Your task to perform on an android device: change keyboard looks Image 0: 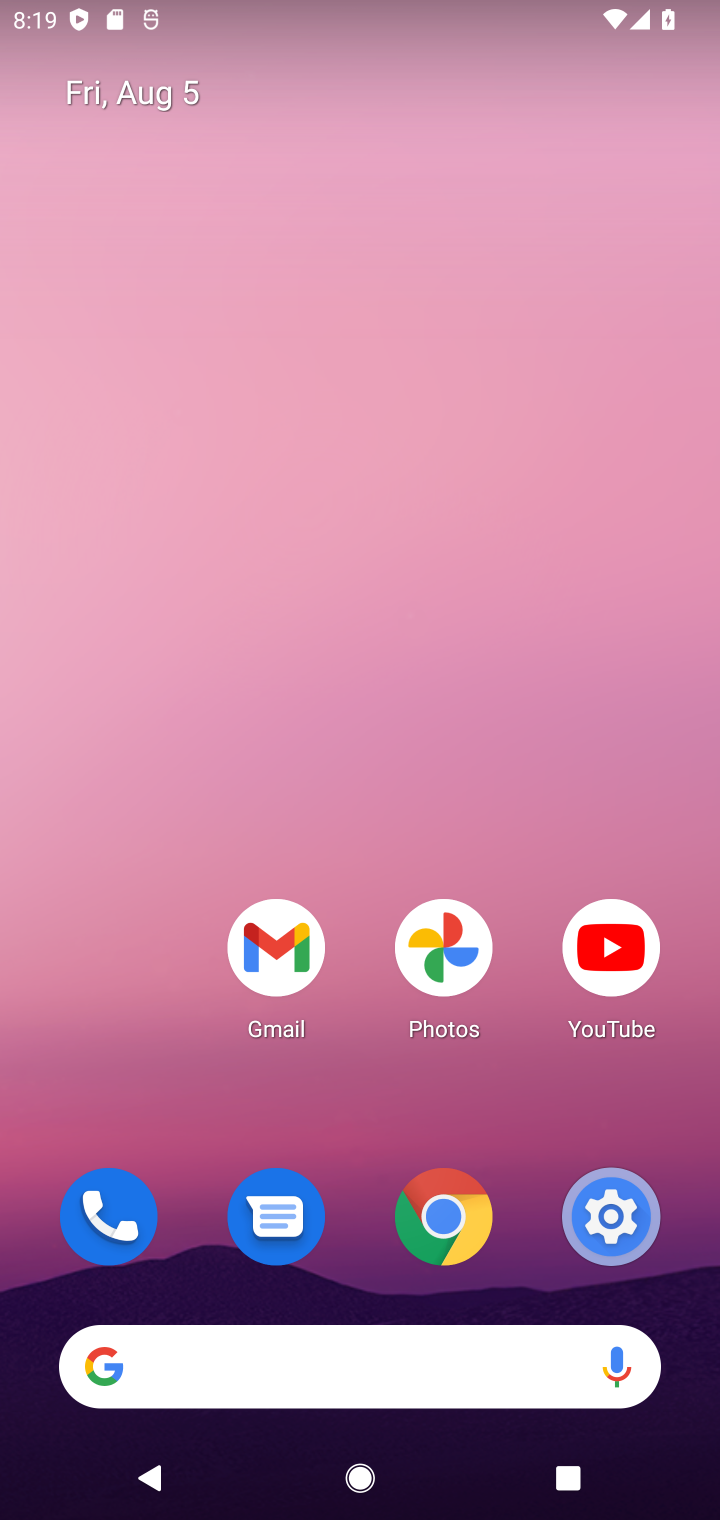
Step 0: drag from (380, 1255) to (429, 141)
Your task to perform on an android device: change keyboard looks Image 1: 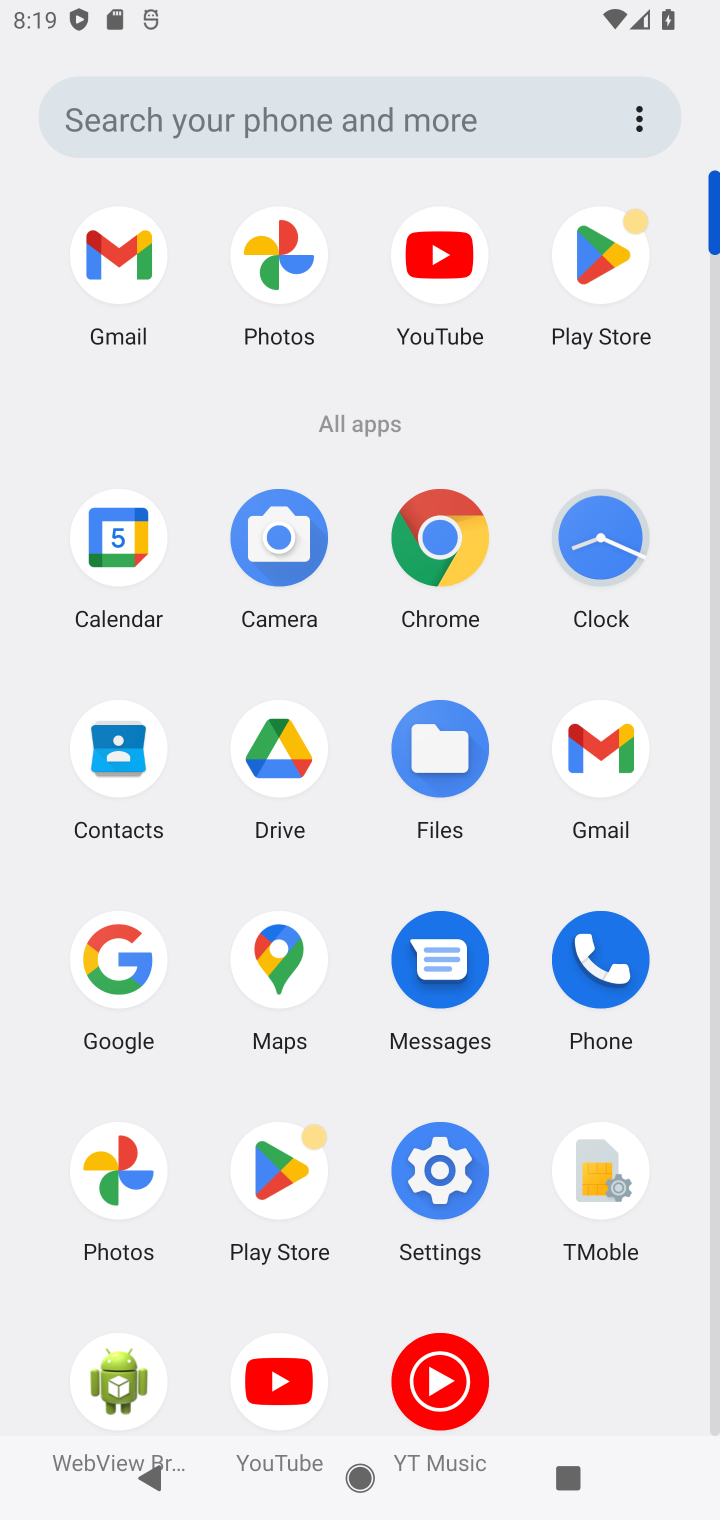
Step 1: drag from (376, 1282) to (444, 431)
Your task to perform on an android device: change keyboard looks Image 2: 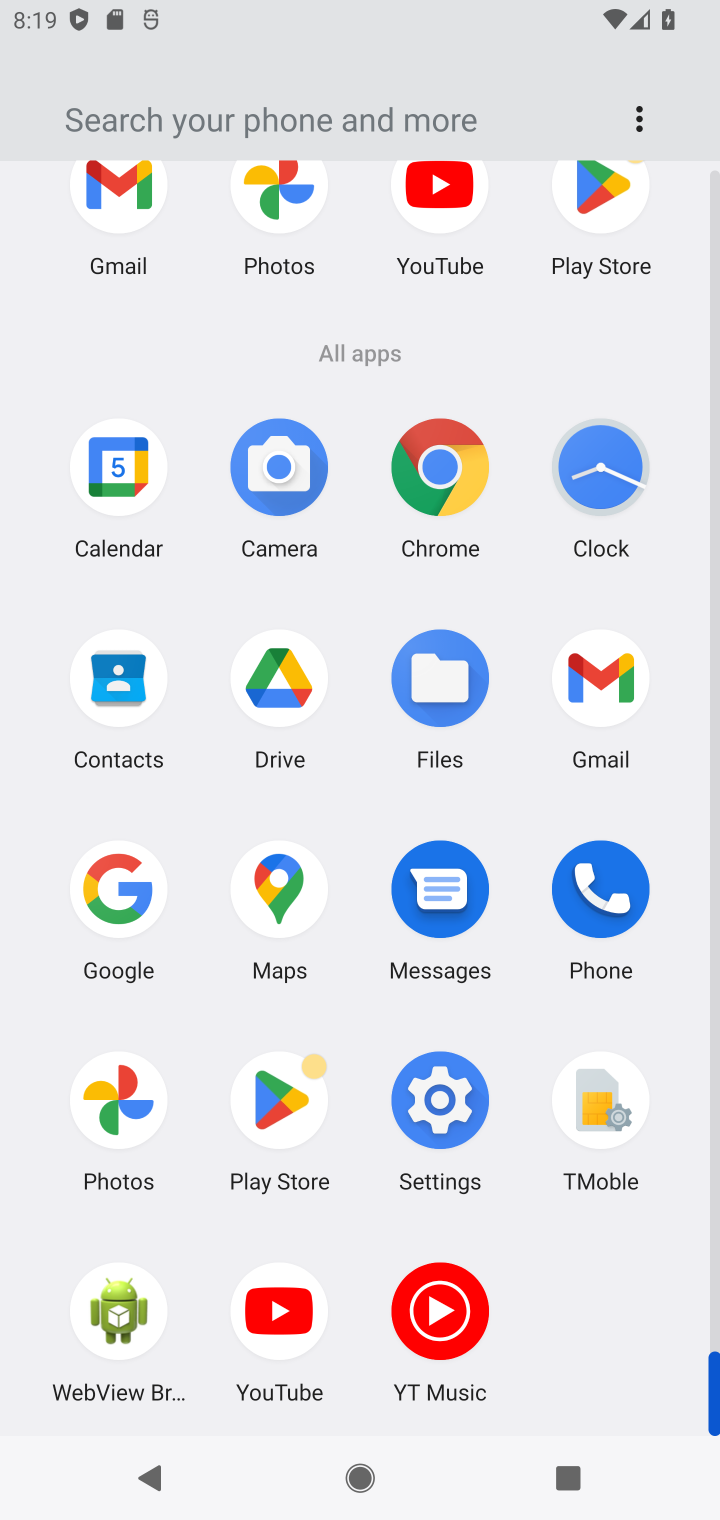
Step 2: click (427, 1095)
Your task to perform on an android device: change keyboard looks Image 3: 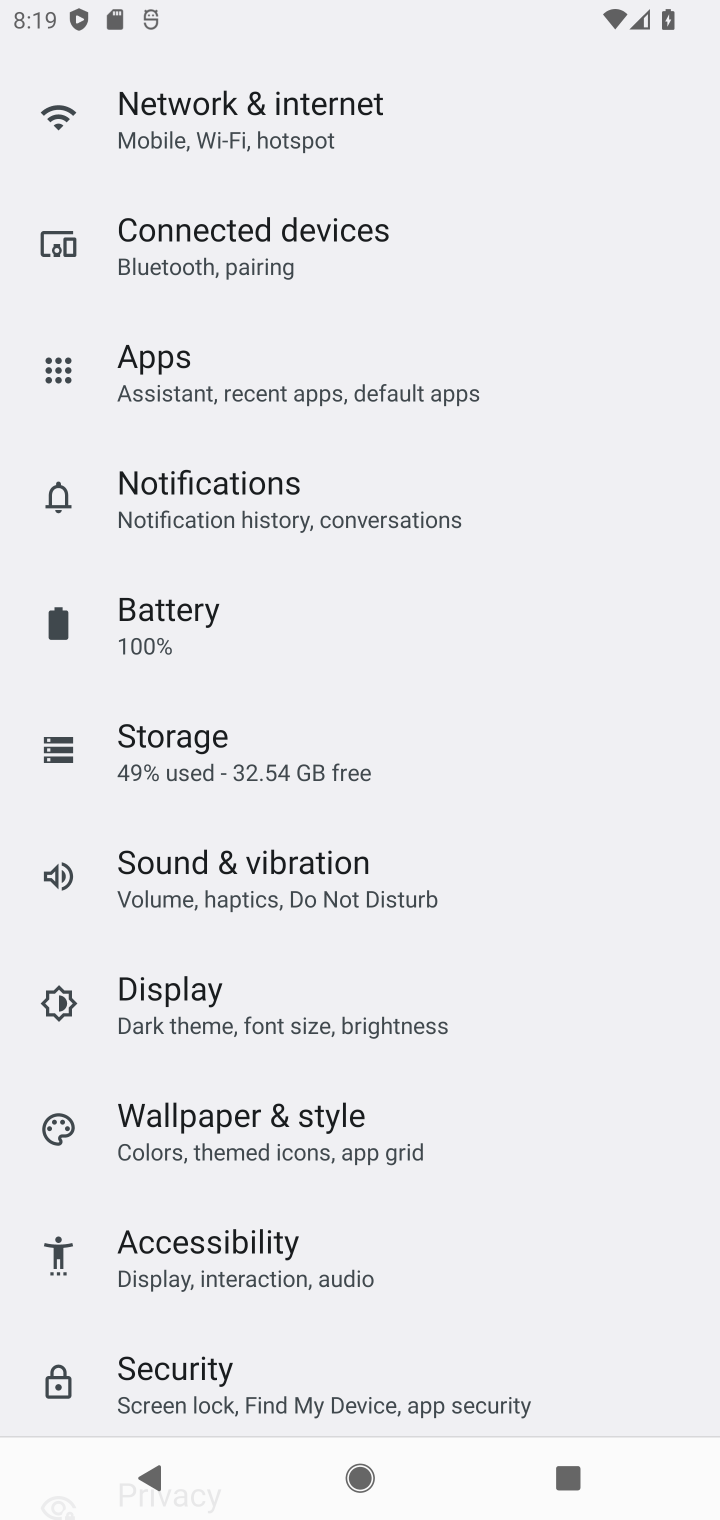
Step 3: drag from (352, 1094) to (539, 429)
Your task to perform on an android device: change keyboard looks Image 4: 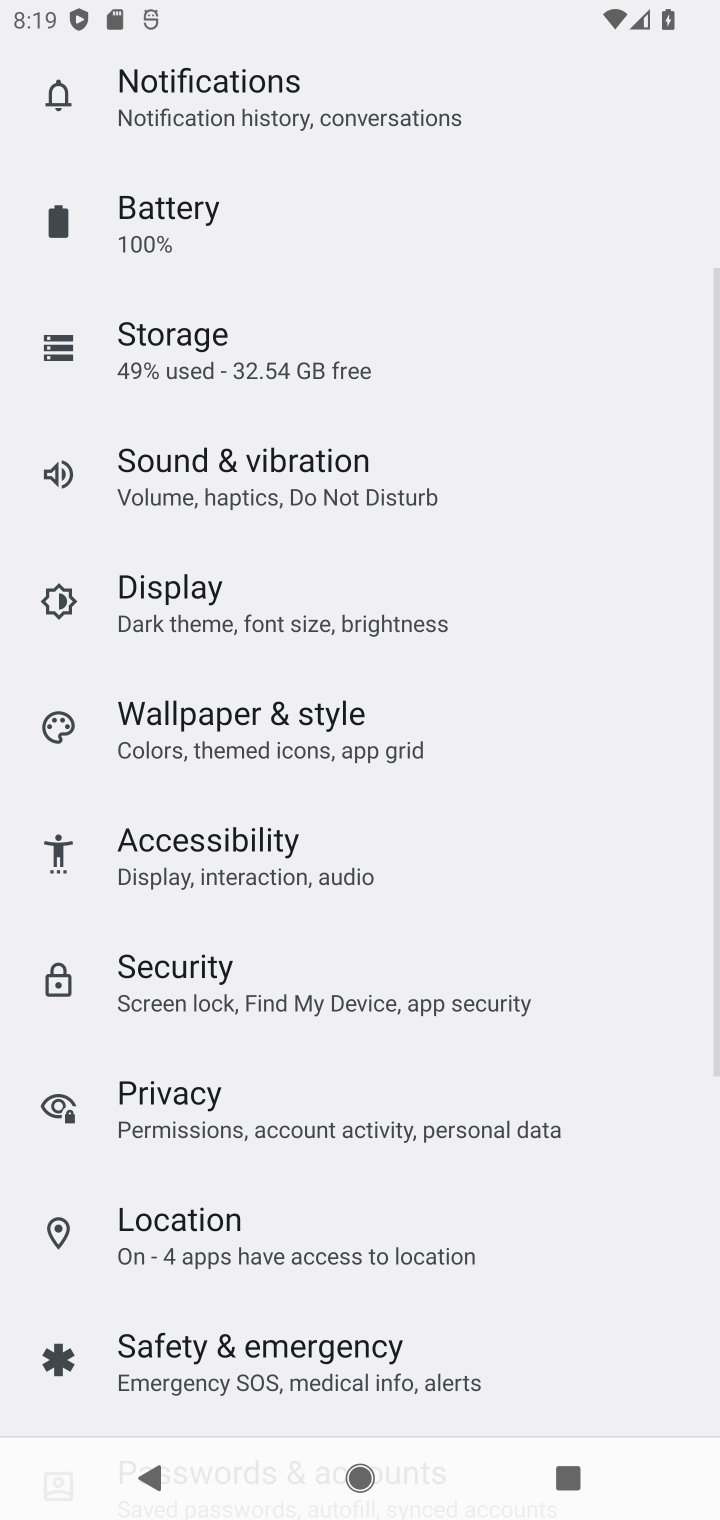
Step 4: drag from (322, 1127) to (392, 296)
Your task to perform on an android device: change keyboard looks Image 5: 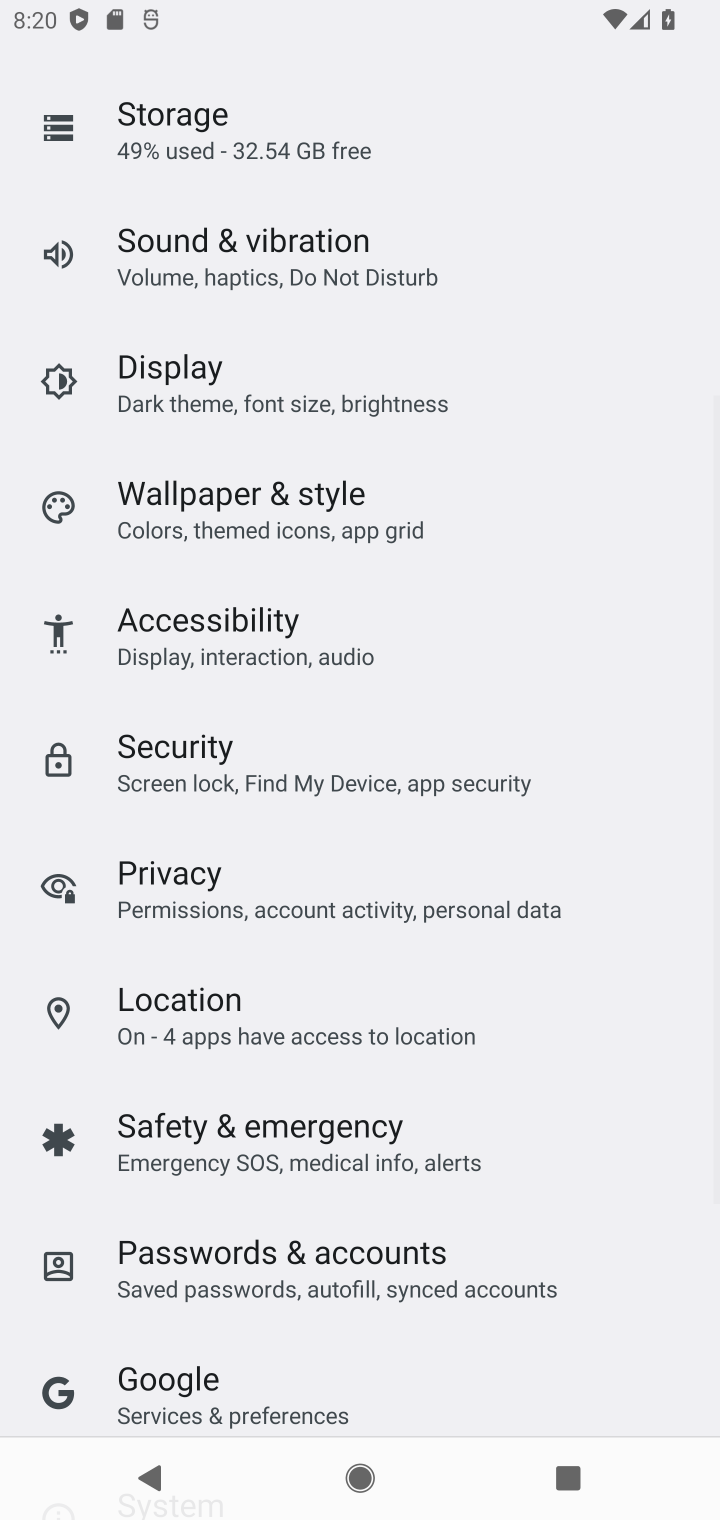
Step 5: drag from (218, 1208) to (347, 642)
Your task to perform on an android device: change keyboard looks Image 6: 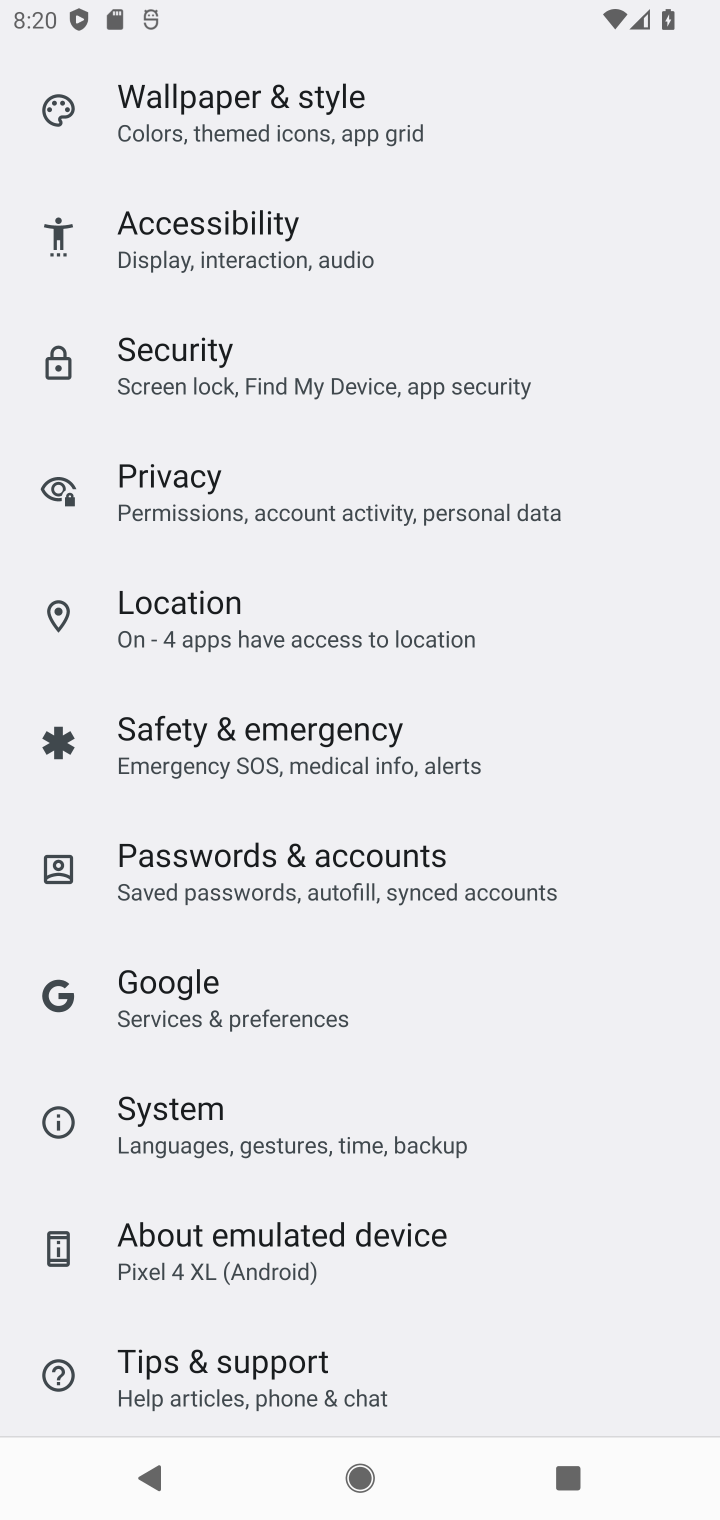
Step 6: click (180, 1111)
Your task to perform on an android device: change keyboard looks Image 7: 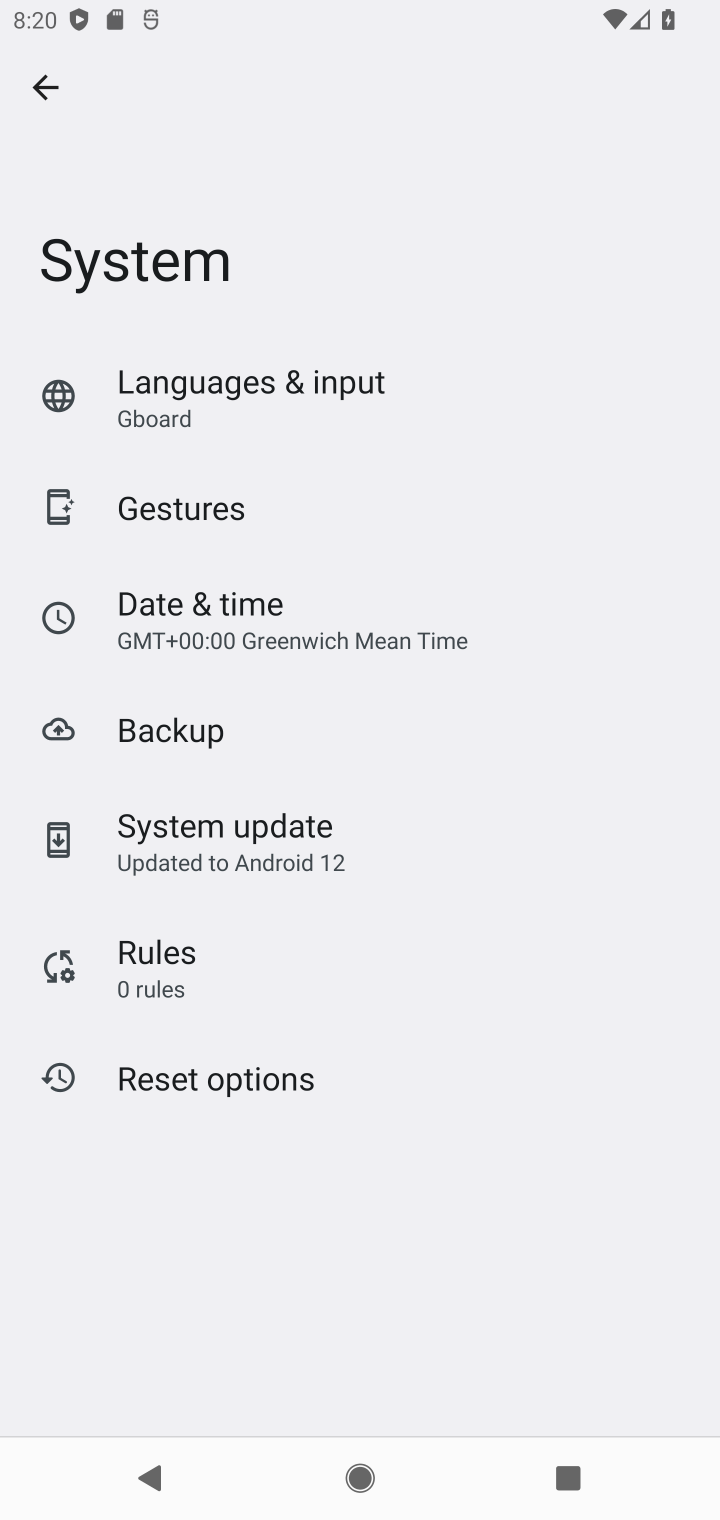
Step 7: click (142, 406)
Your task to perform on an android device: change keyboard looks Image 8: 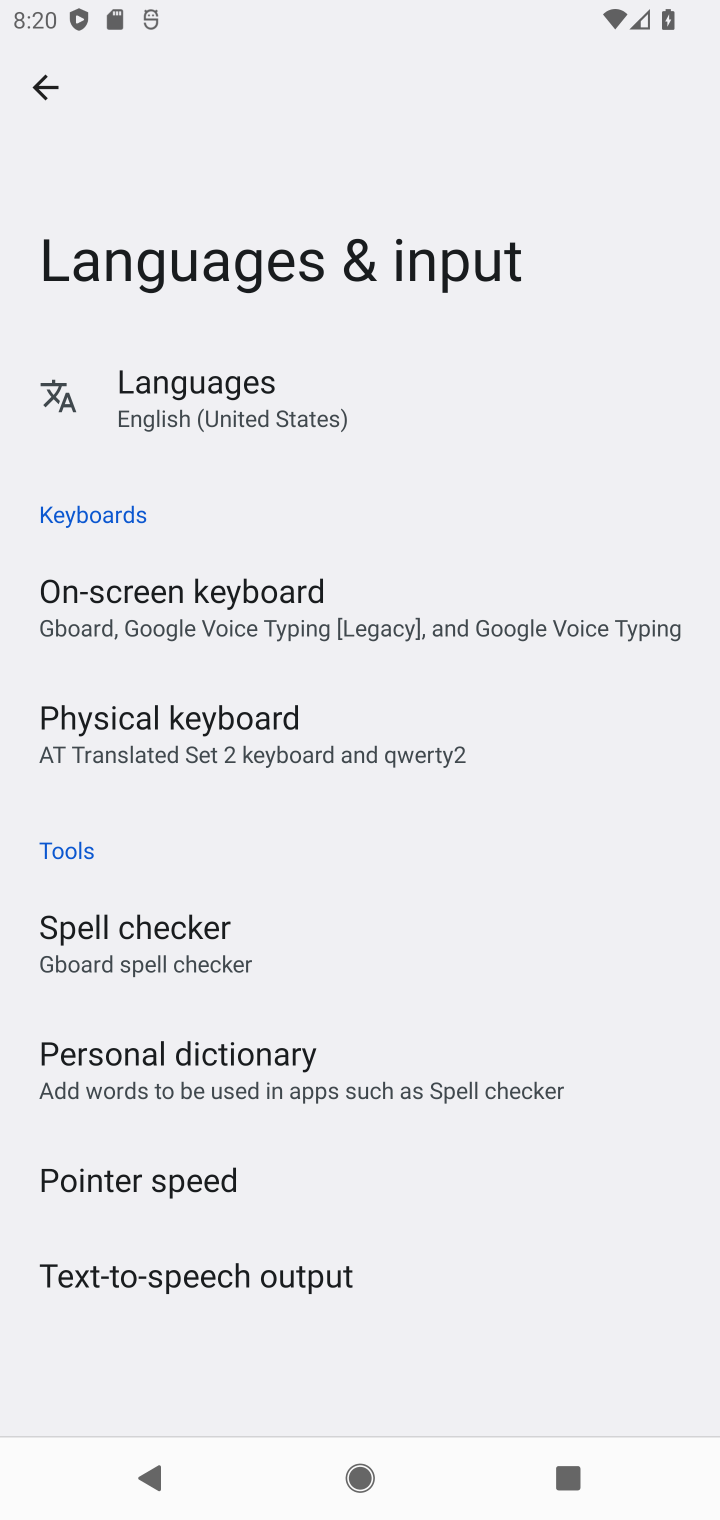
Step 8: drag from (293, 1075) to (418, 512)
Your task to perform on an android device: change keyboard looks Image 9: 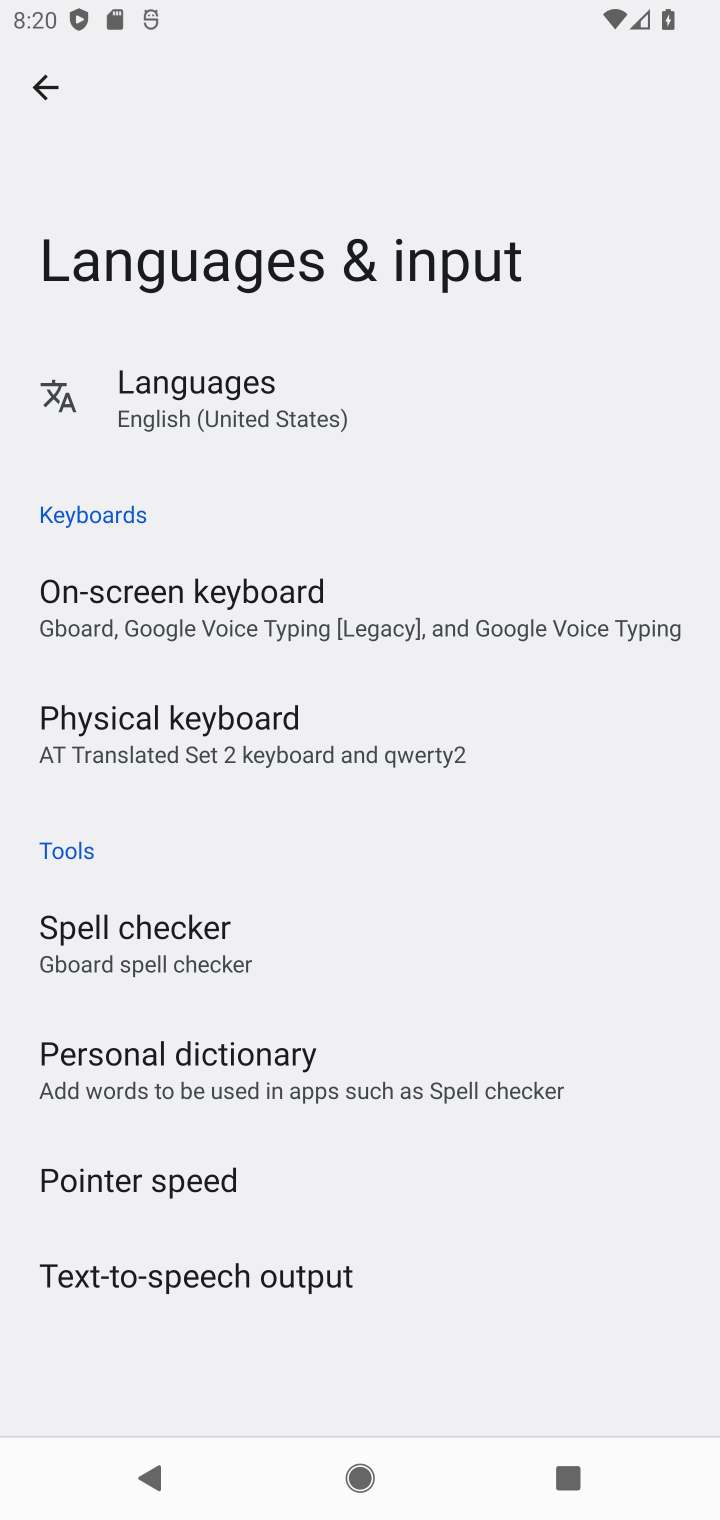
Step 9: click (214, 564)
Your task to perform on an android device: change keyboard looks Image 10: 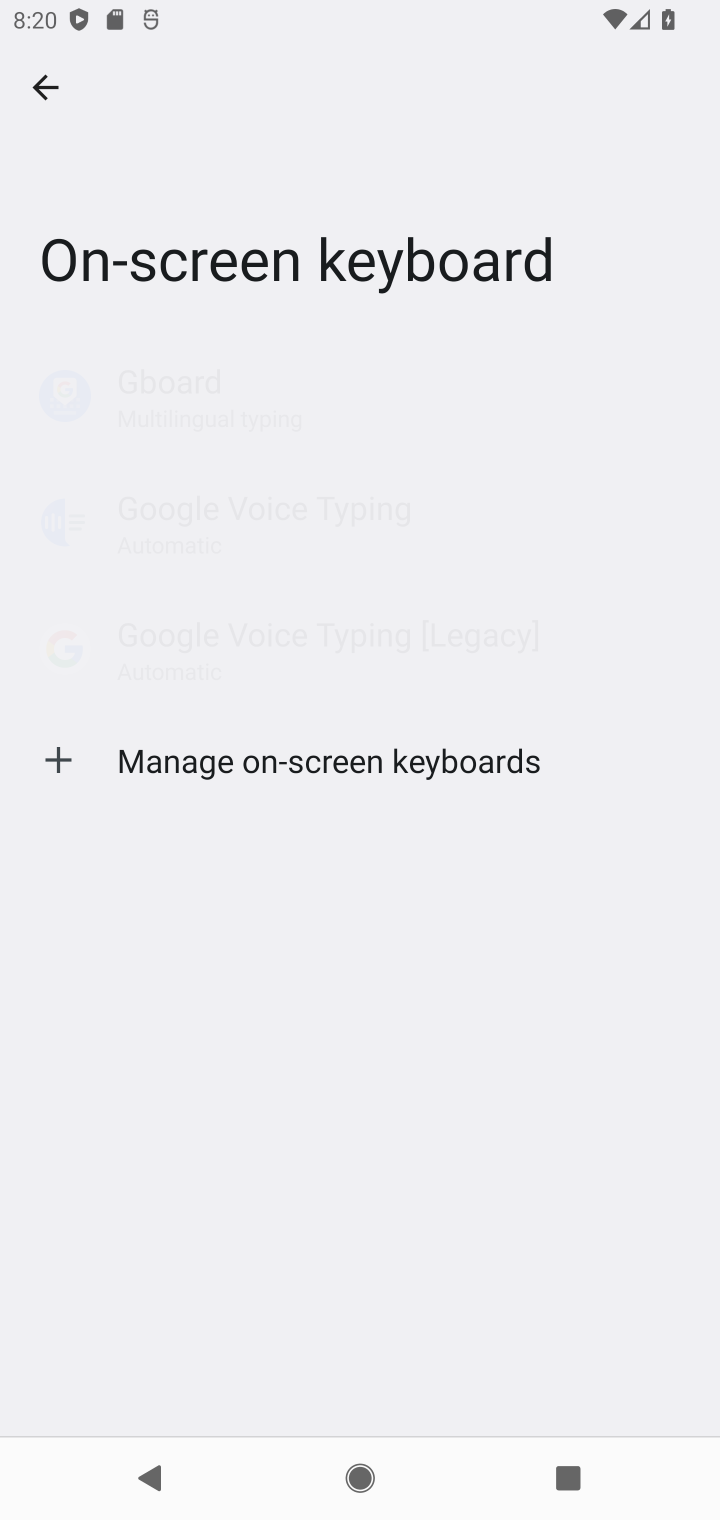
Step 10: drag from (299, 1040) to (448, 544)
Your task to perform on an android device: change keyboard looks Image 11: 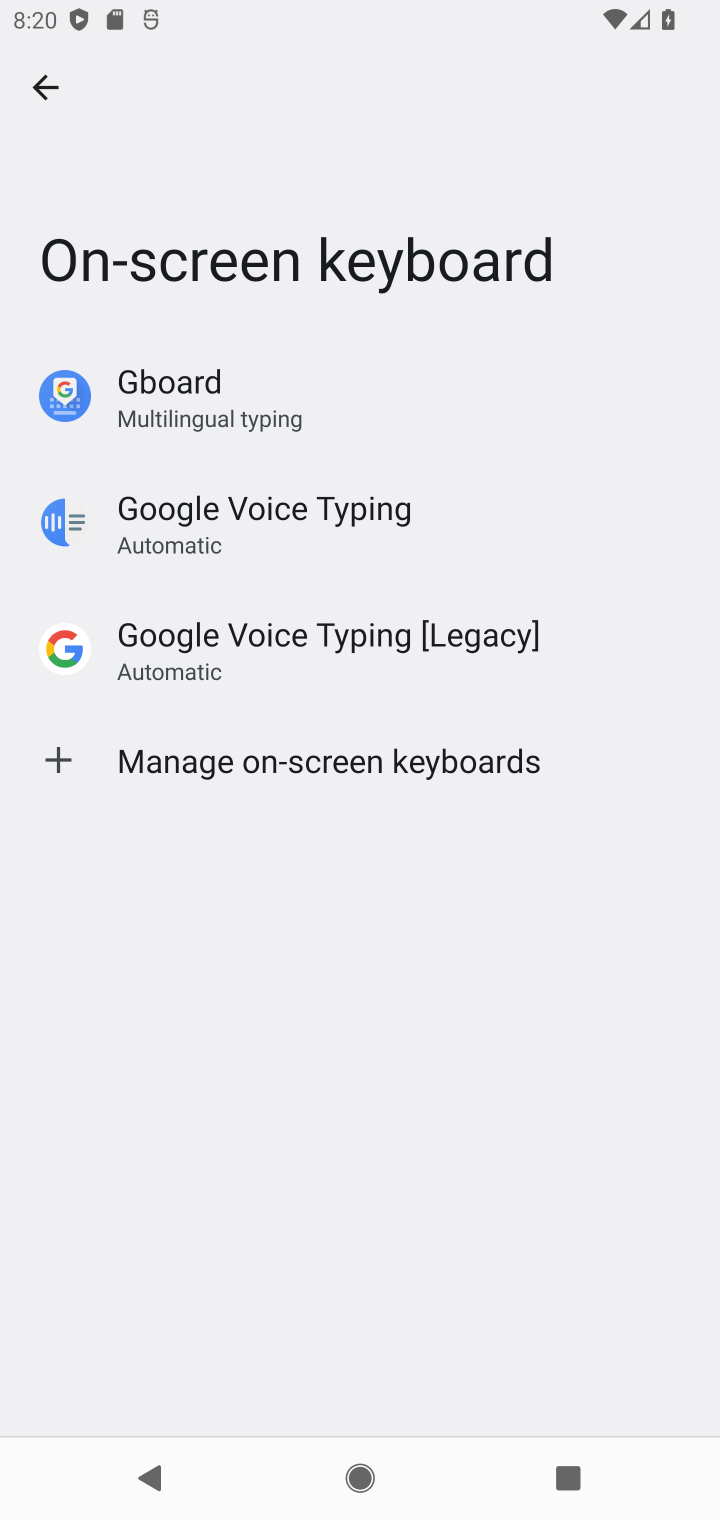
Step 11: click (130, 399)
Your task to perform on an android device: change keyboard looks Image 12: 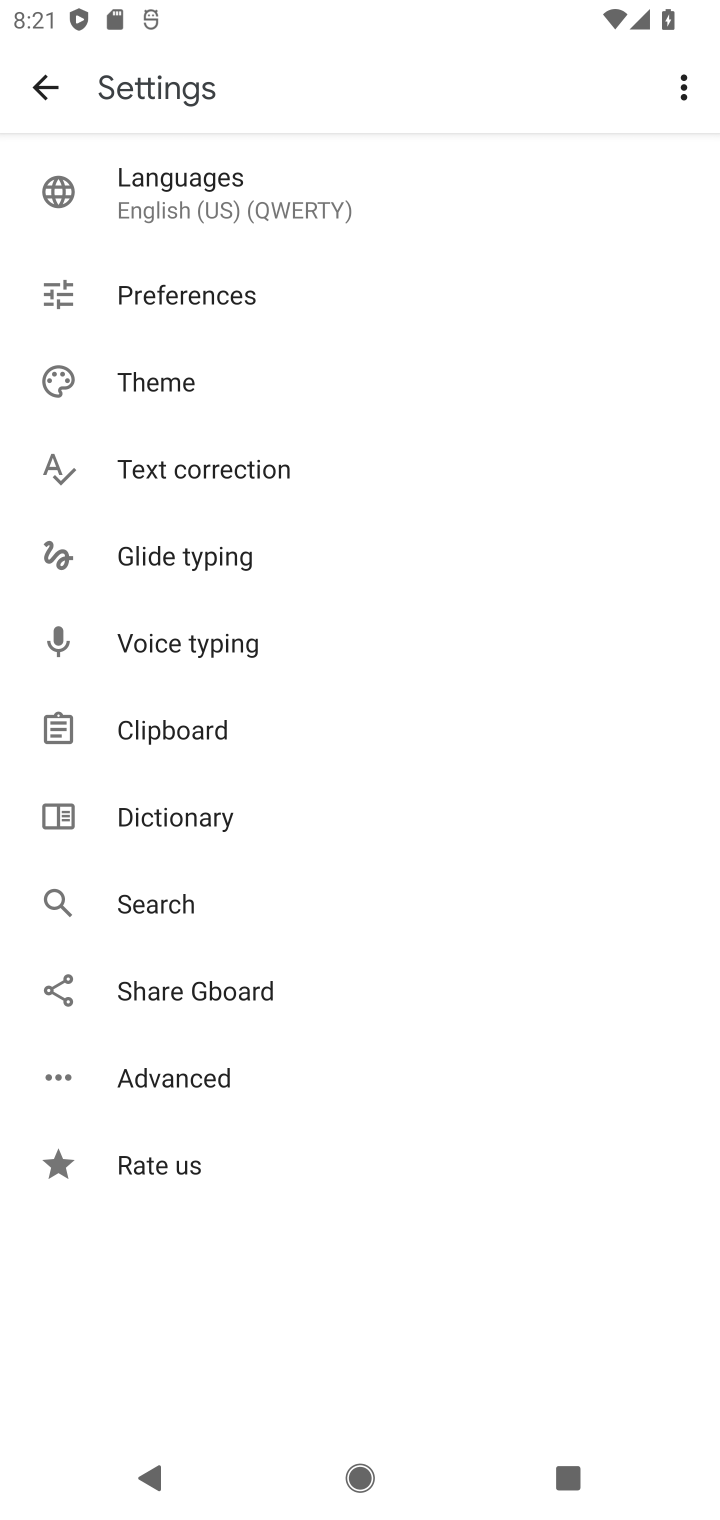
Step 12: click (167, 374)
Your task to perform on an android device: change keyboard looks Image 13: 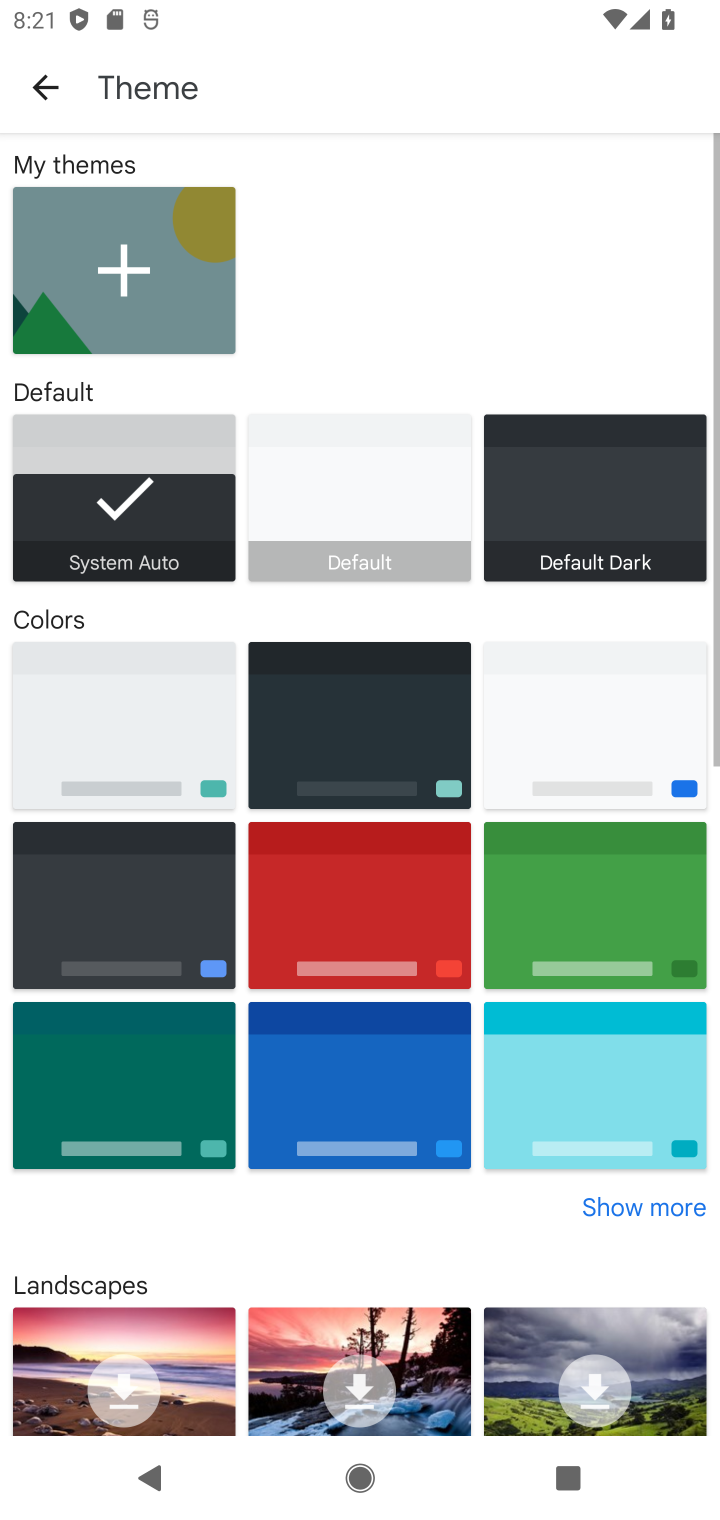
Step 13: click (614, 476)
Your task to perform on an android device: change keyboard looks Image 14: 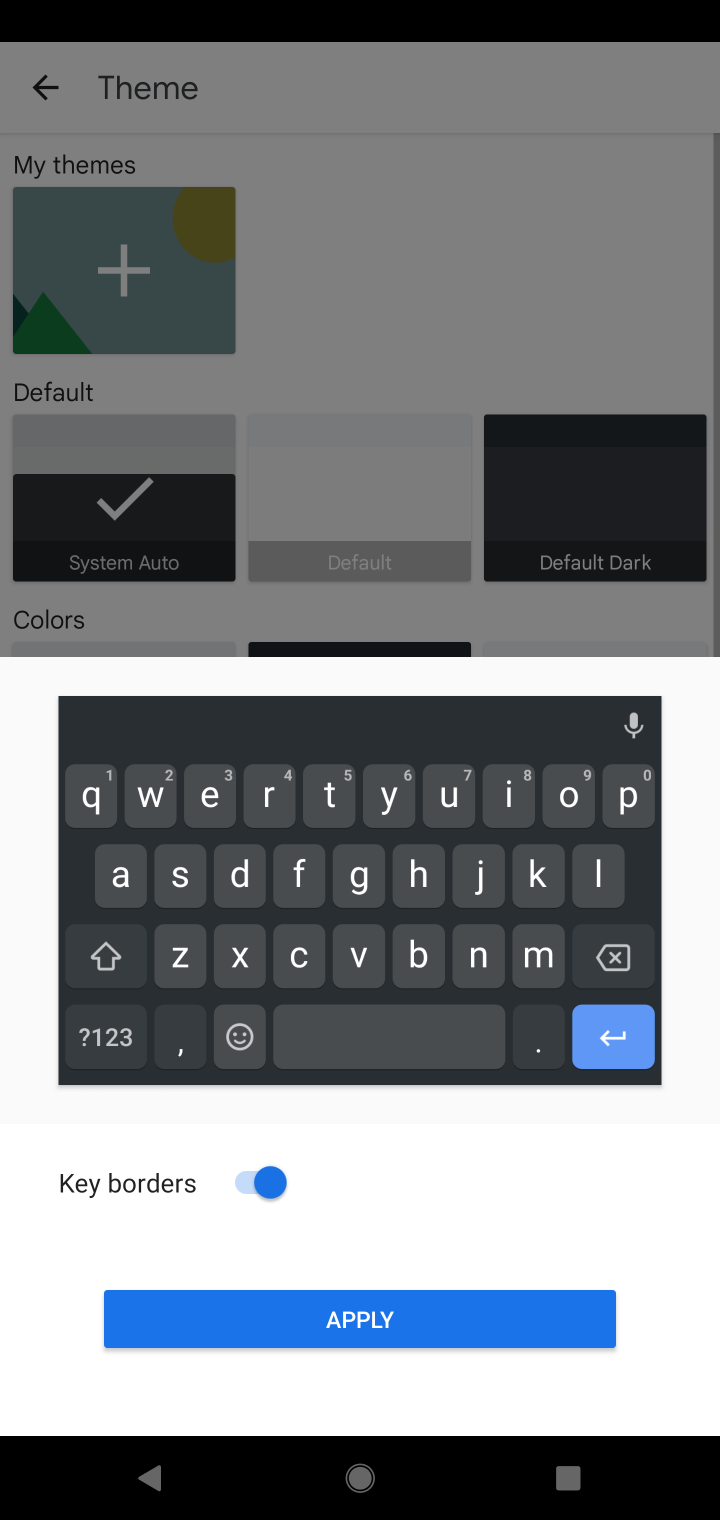
Step 14: click (396, 1316)
Your task to perform on an android device: change keyboard looks Image 15: 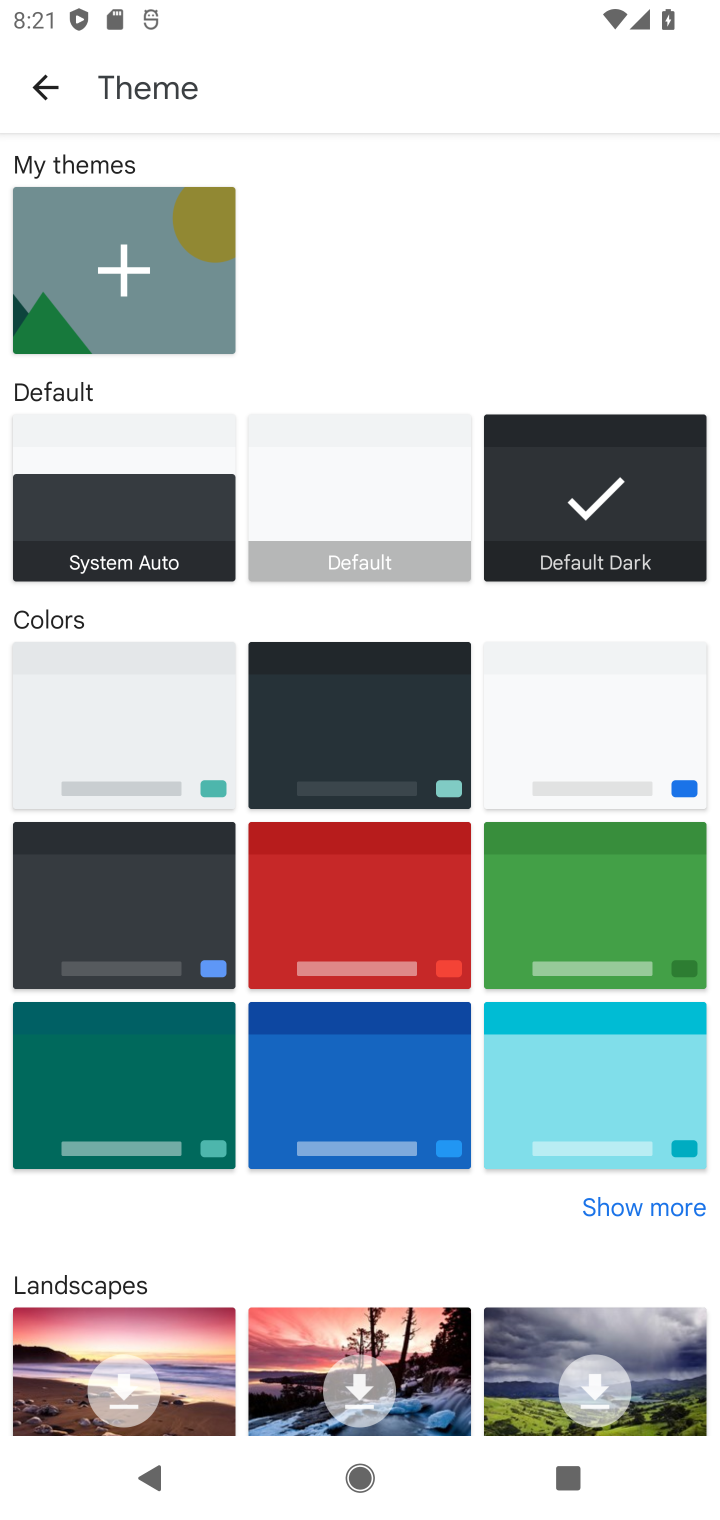
Step 15: drag from (440, 1152) to (448, 648)
Your task to perform on an android device: change keyboard looks Image 16: 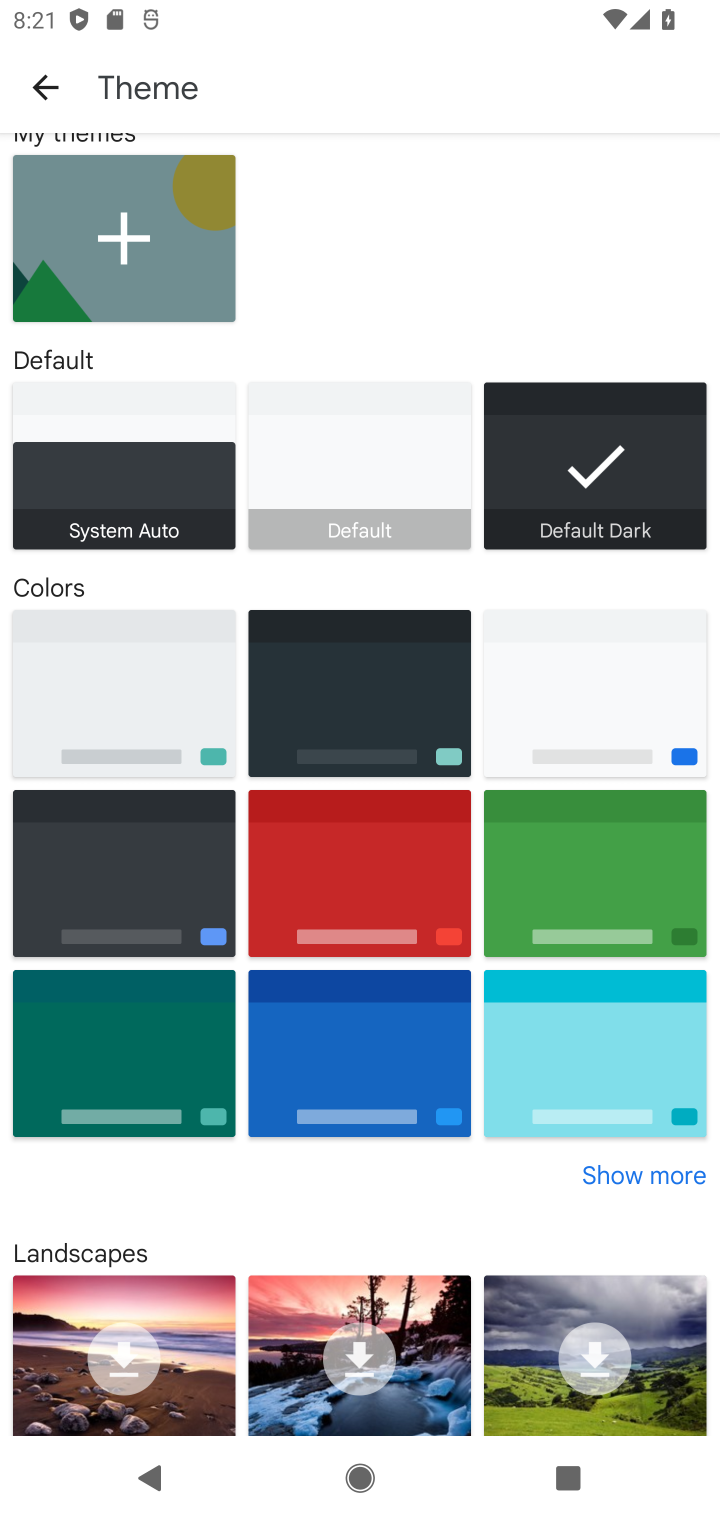
Step 16: click (600, 399)
Your task to perform on an android device: change keyboard looks Image 17: 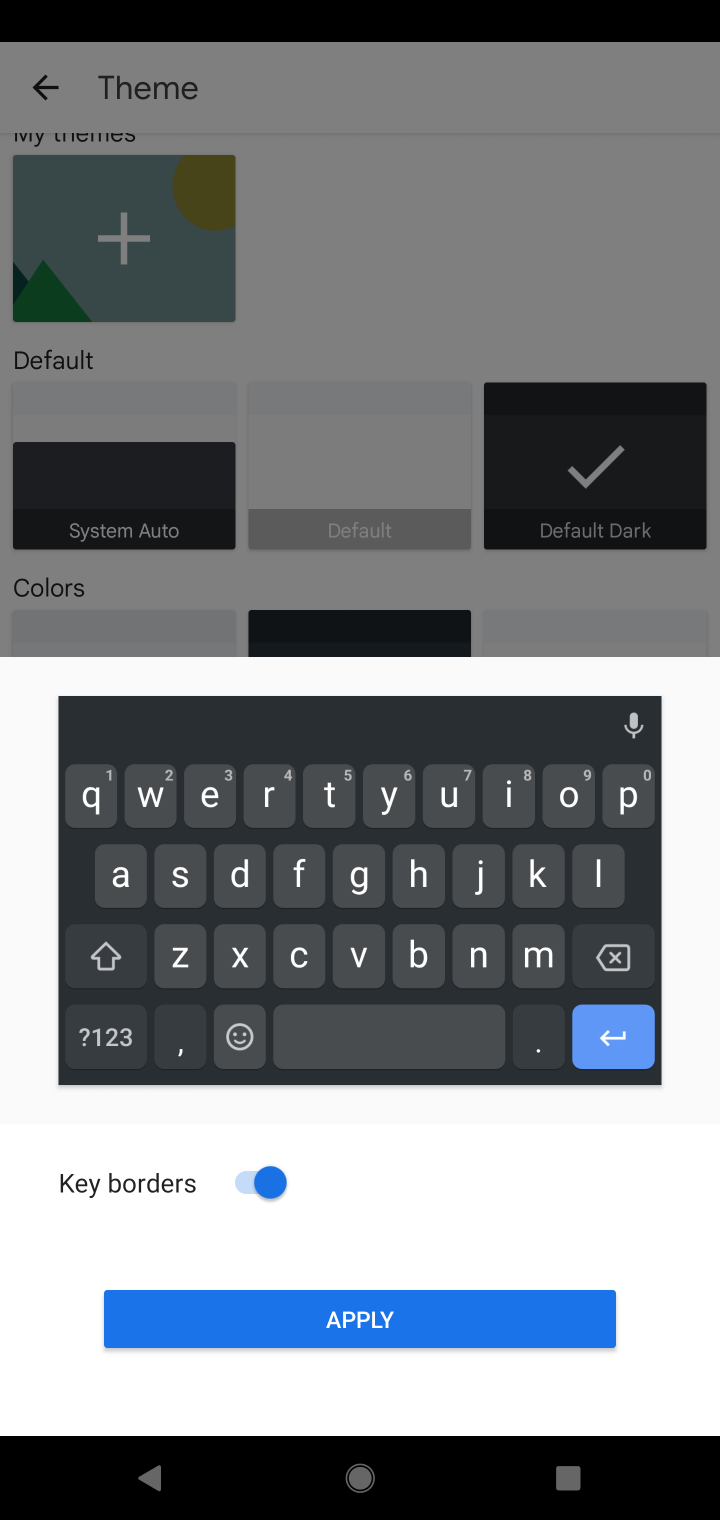
Step 17: task complete